Your task to perform on an android device: delete browsing data in the chrome app Image 0: 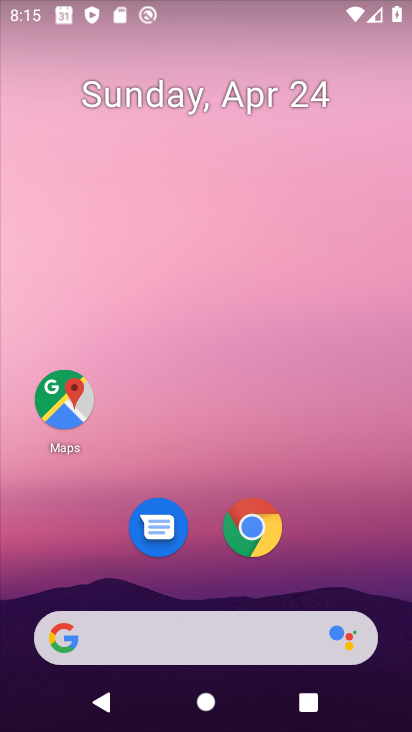
Step 0: click (260, 528)
Your task to perform on an android device: delete browsing data in the chrome app Image 1: 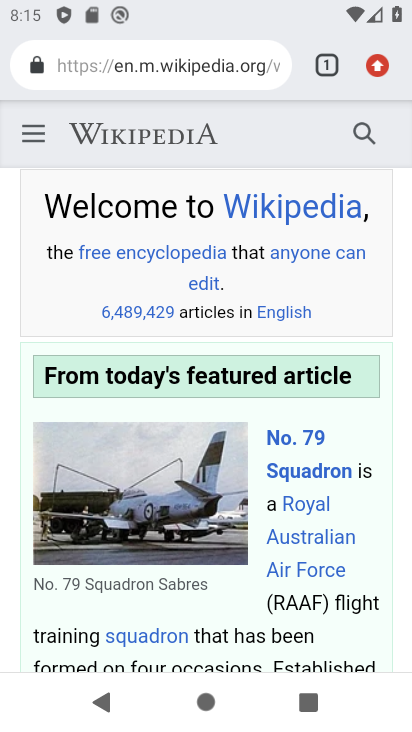
Step 1: click (374, 68)
Your task to perform on an android device: delete browsing data in the chrome app Image 2: 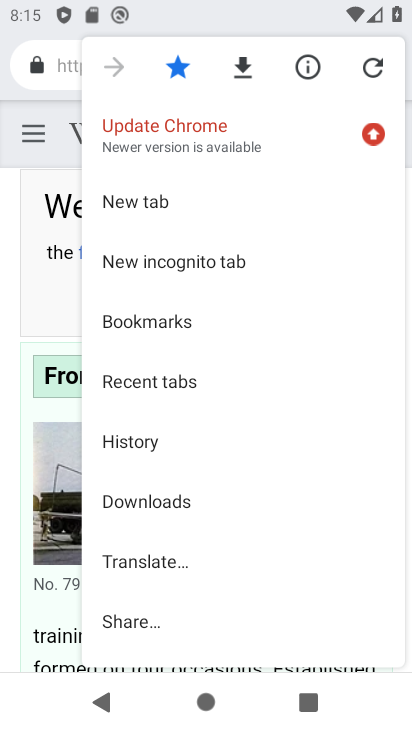
Step 2: drag from (263, 558) to (242, 115)
Your task to perform on an android device: delete browsing data in the chrome app Image 3: 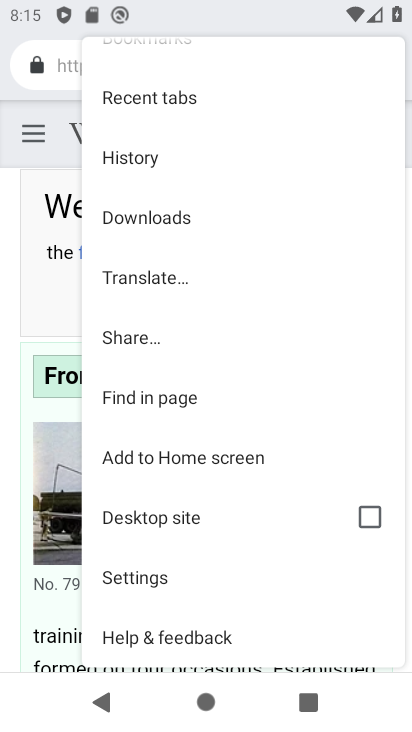
Step 3: click (144, 581)
Your task to perform on an android device: delete browsing data in the chrome app Image 4: 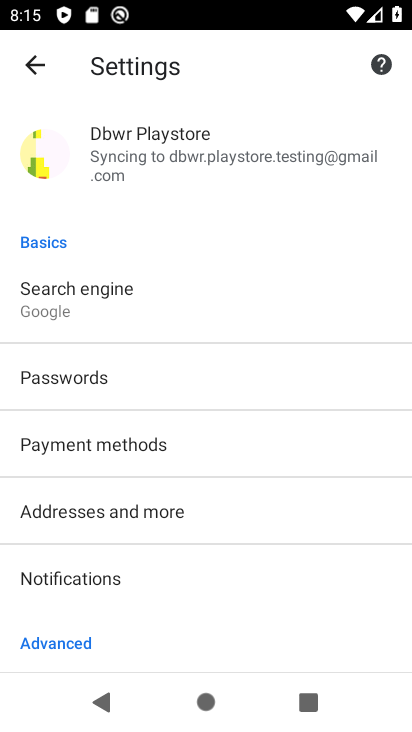
Step 4: drag from (208, 595) to (186, 107)
Your task to perform on an android device: delete browsing data in the chrome app Image 5: 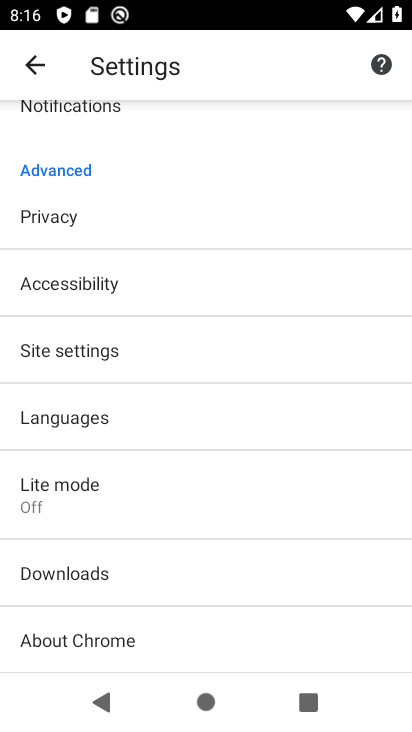
Step 5: click (53, 216)
Your task to perform on an android device: delete browsing data in the chrome app Image 6: 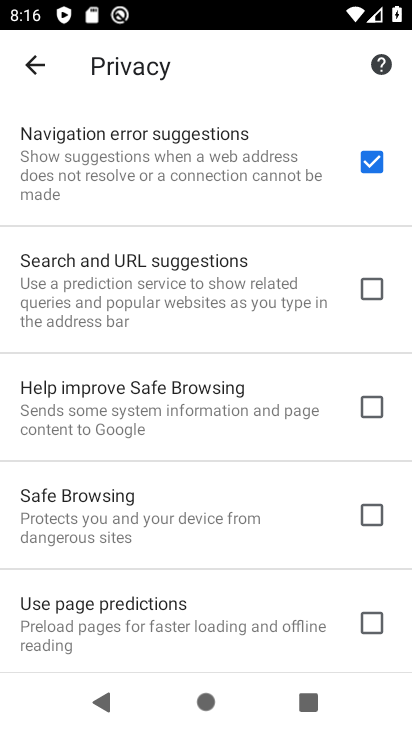
Step 6: drag from (218, 557) to (200, 97)
Your task to perform on an android device: delete browsing data in the chrome app Image 7: 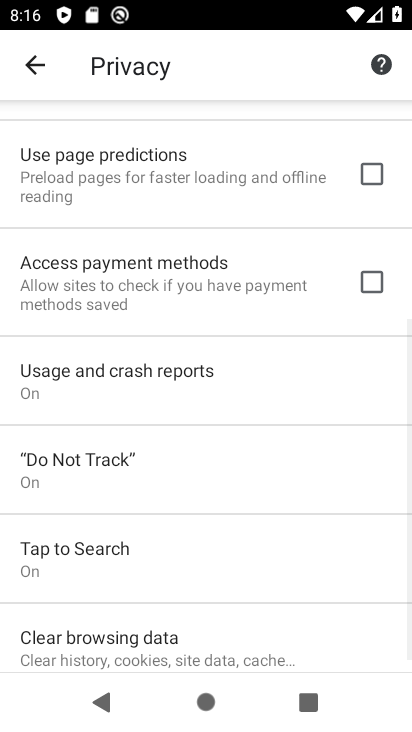
Step 7: drag from (200, 506) to (185, 123)
Your task to perform on an android device: delete browsing data in the chrome app Image 8: 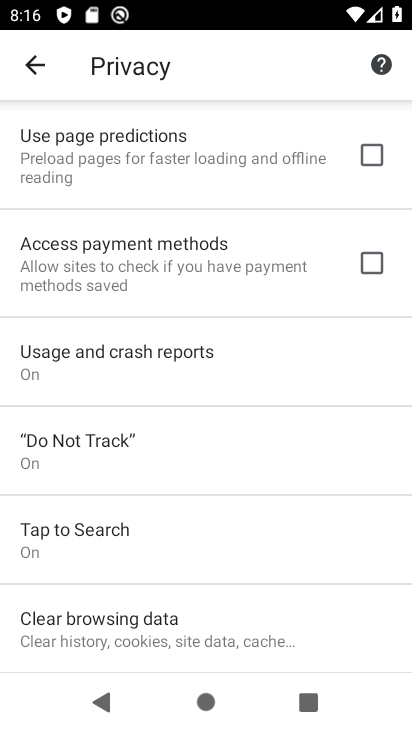
Step 8: click (117, 646)
Your task to perform on an android device: delete browsing data in the chrome app Image 9: 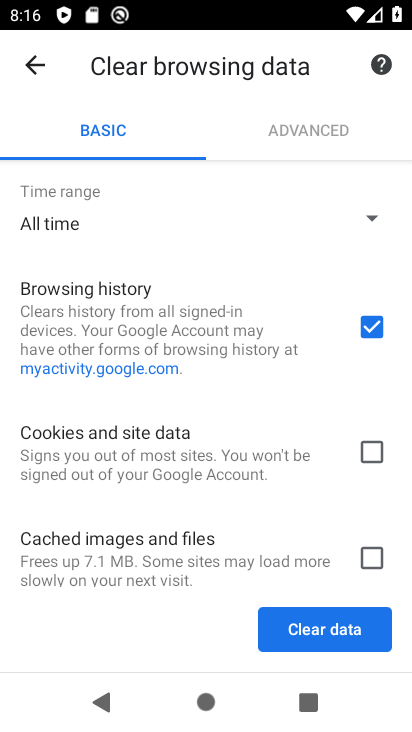
Step 9: drag from (185, 492) to (172, 366)
Your task to perform on an android device: delete browsing data in the chrome app Image 10: 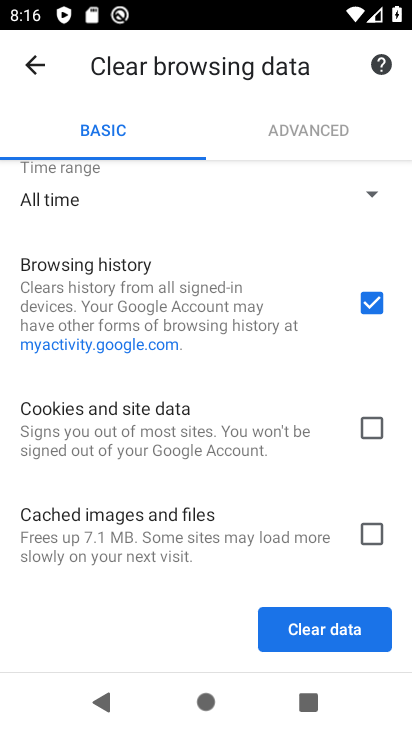
Step 10: click (313, 640)
Your task to perform on an android device: delete browsing data in the chrome app Image 11: 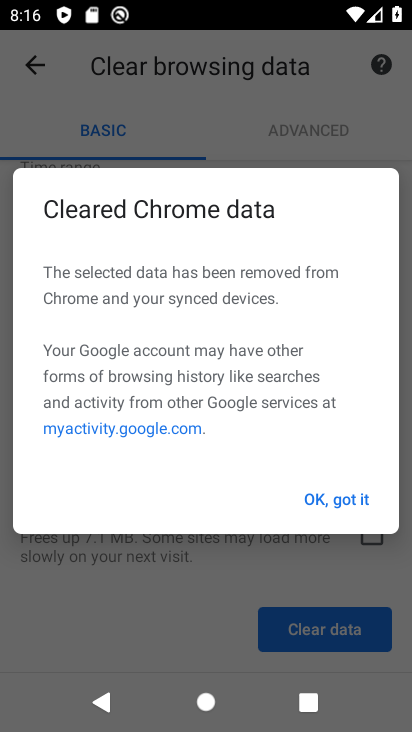
Step 11: click (311, 503)
Your task to perform on an android device: delete browsing data in the chrome app Image 12: 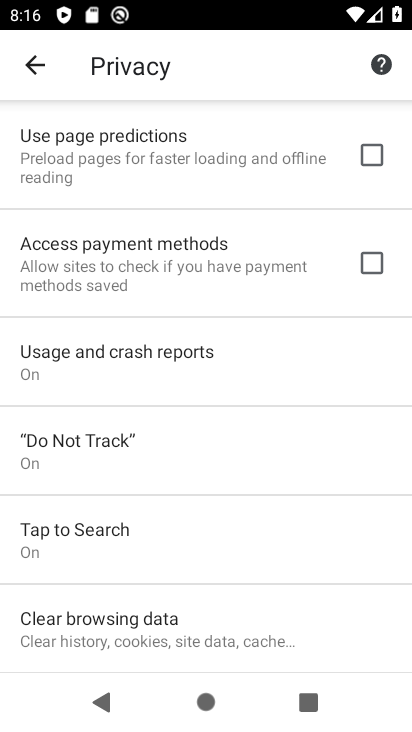
Step 12: task complete